Your task to perform on an android device: Search for seafood restaurants on Google Maps Image 0: 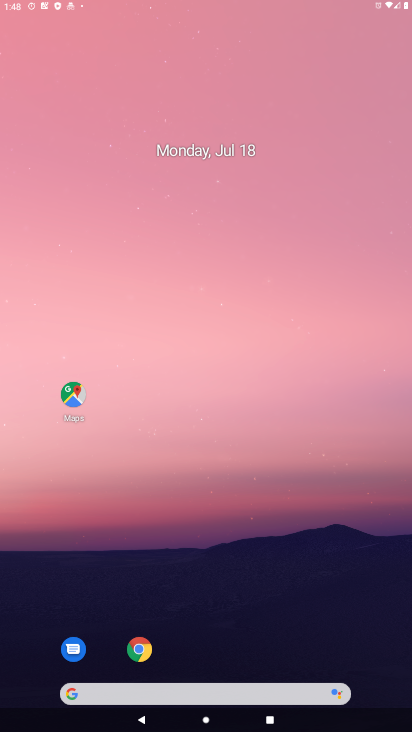
Step 0: drag from (217, 657) to (224, 3)
Your task to perform on an android device: Search for seafood restaurants on Google Maps Image 1: 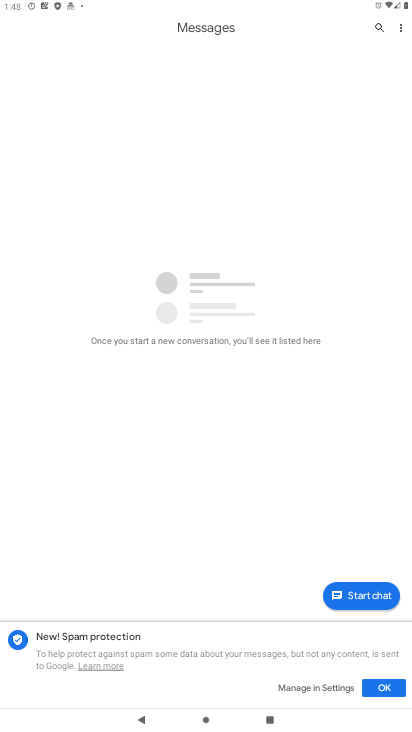
Step 1: press home button
Your task to perform on an android device: Search for seafood restaurants on Google Maps Image 2: 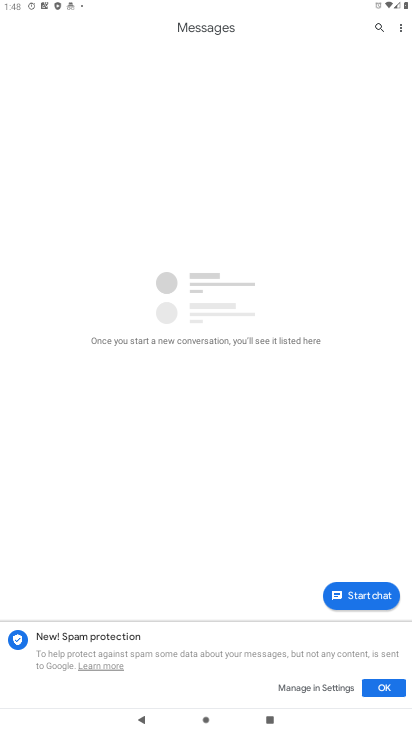
Step 2: drag from (224, 3) to (379, 685)
Your task to perform on an android device: Search for seafood restaurants on Google Maps Image 3: 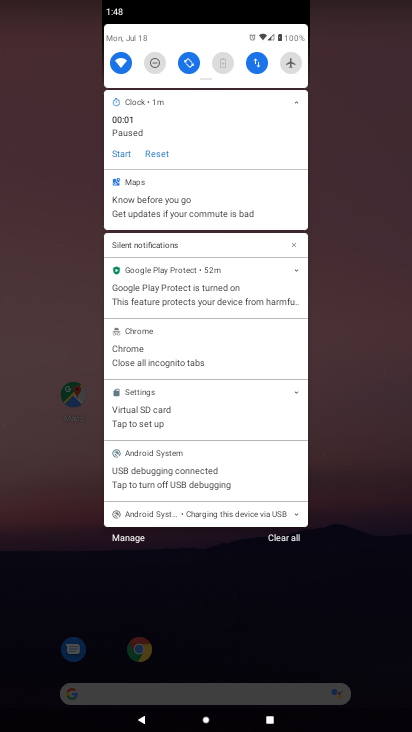
Step 3: click (184, 575)
Your task to perform on an android device: Search for seafood restaurants on Google Maps Image 4: 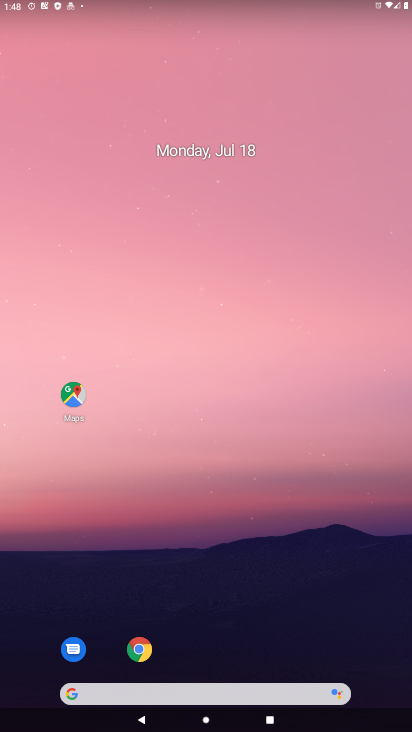
Step 4: click (81, 389)
Your task to perform on an android device: Search for seafood restaurants on Google Maps Image 5: 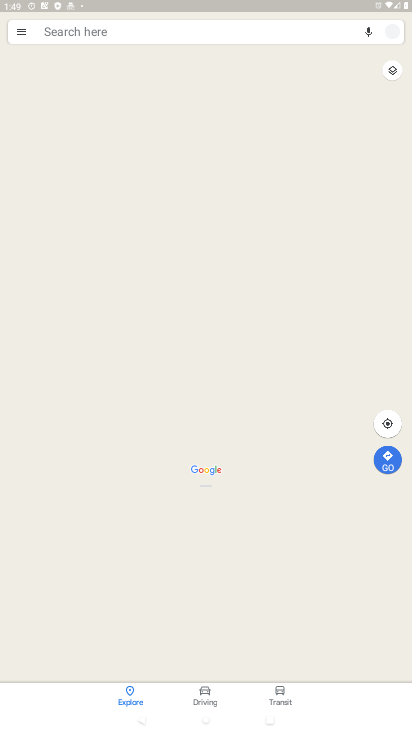
Step 5: click (188, 39)
Your task to perform on an android device: Search for seafood restaurants on Google Maps Image 6: 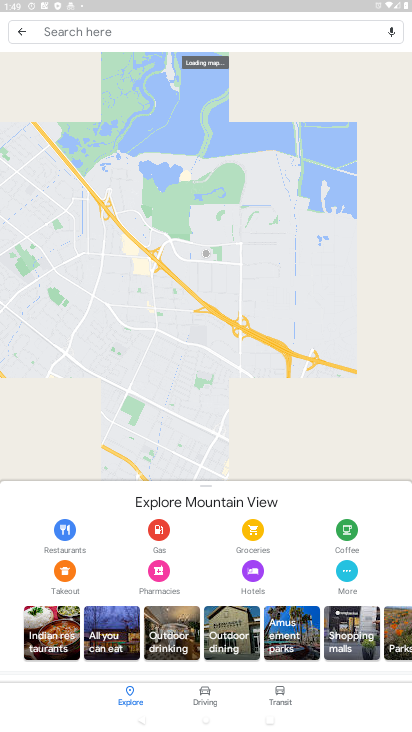
Step 6: click (188, 39)
Your task to perform on an android device: Search for seafood restaurants on Google Maps Image 7: 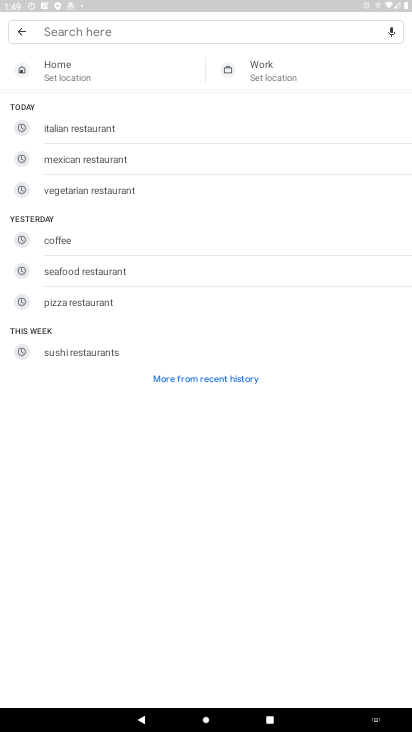
Step 7: click (108, 267)
Your task to perform on an android device: Search for seafood restaurants on Google Maps Image 8: 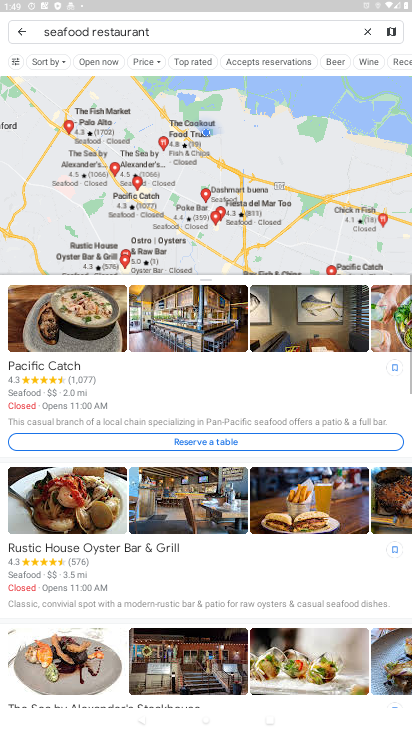
Step 8: task complete